Your task to perform on an android device: refresh tabs in the chrome app Image 0: 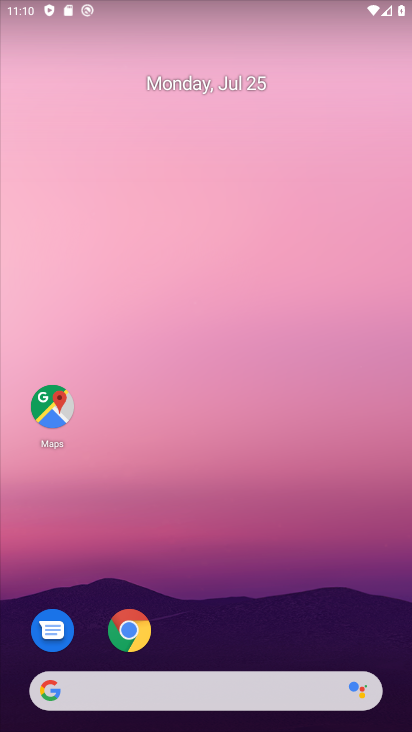
Step 0: drag from (228, 529) to (200, 100)
Your task to perform on an android device: refresh tabs in the chrome app Image 1: 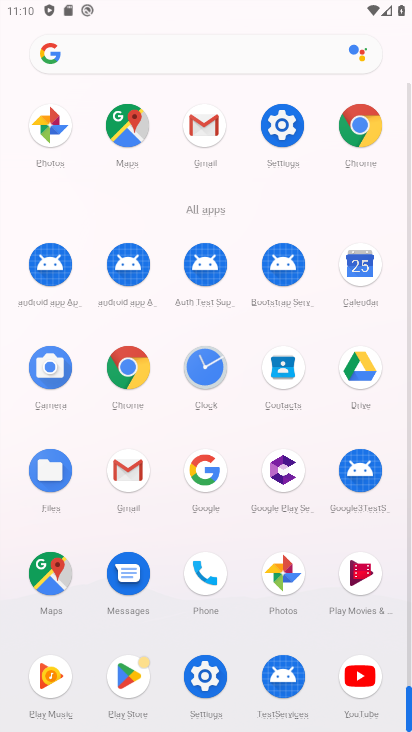
Step 1: click (352, 126)
Your task to perform on an android device: refresh tabs in the chrome app Image 2: 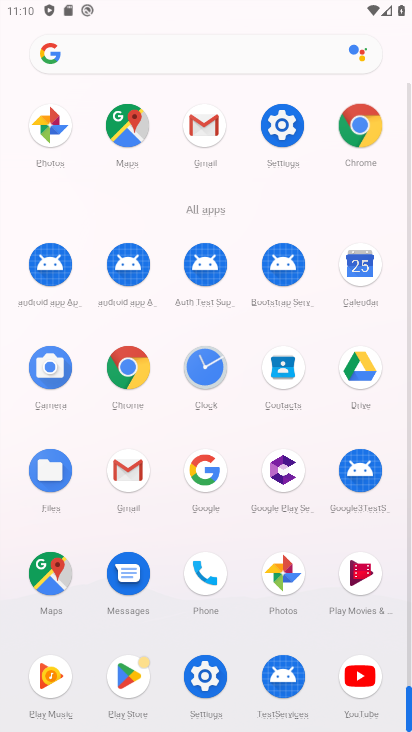
Step 2: click (352, 126)
Your task to perform on an android device: refresh tabs in the chrome app Image 3: 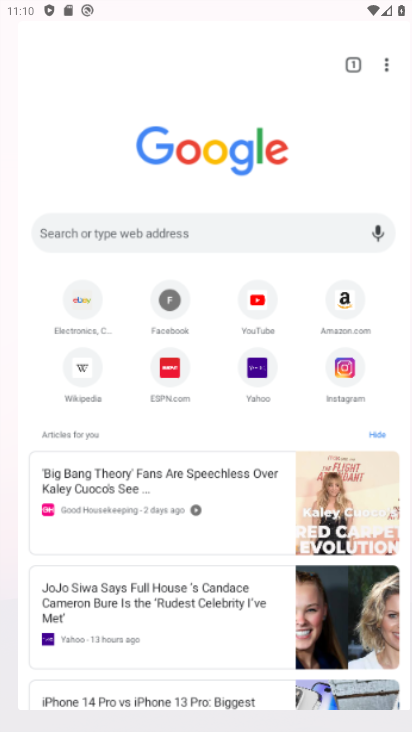
Step 3: click (358, 129)
Your task to perform on an android device: refresh tabs in the chrome app Image 4: 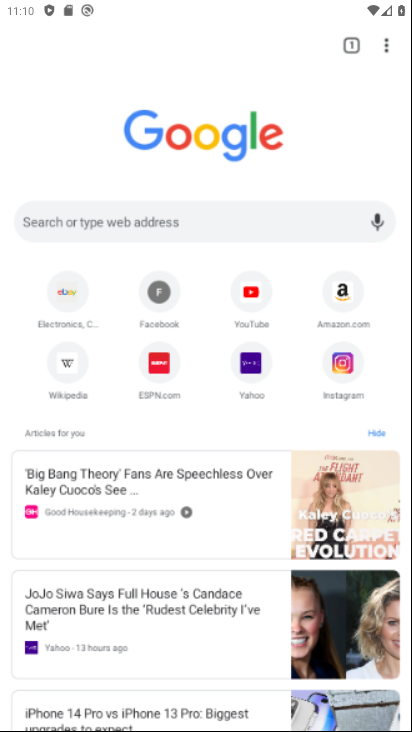
Step 4: click (358, 129)
Your task to perform on an android device: refresh tabs in the chrome app Image 5: 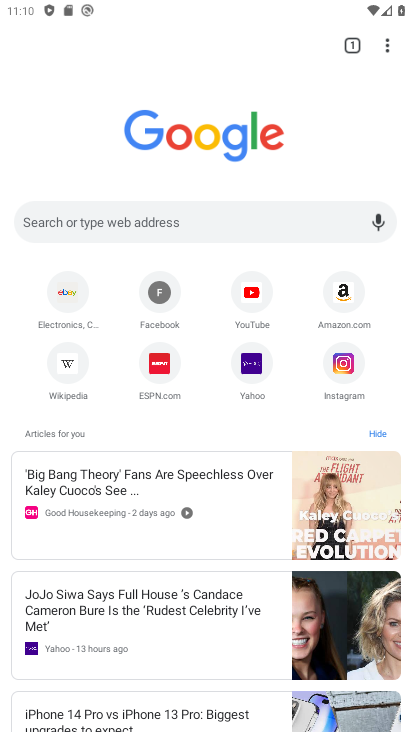
Step 5: click (385, 31)
Your task to perform on an android device: refresh tabs in the chrome app Image 6: 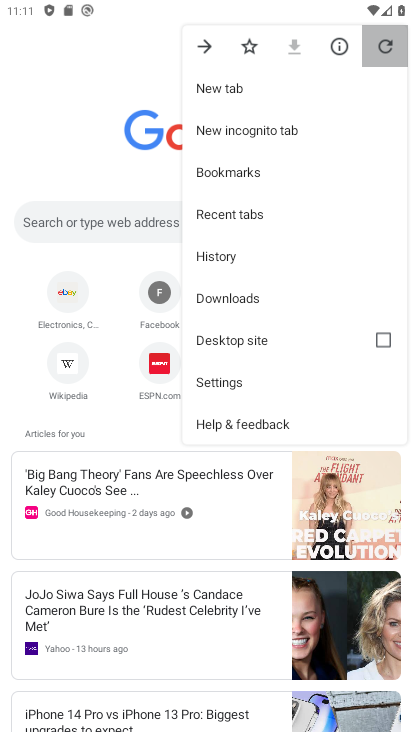
Step 6: click (385, 44)
Your task to perform on an android device: refresh tabs in the chrome app Image 7: 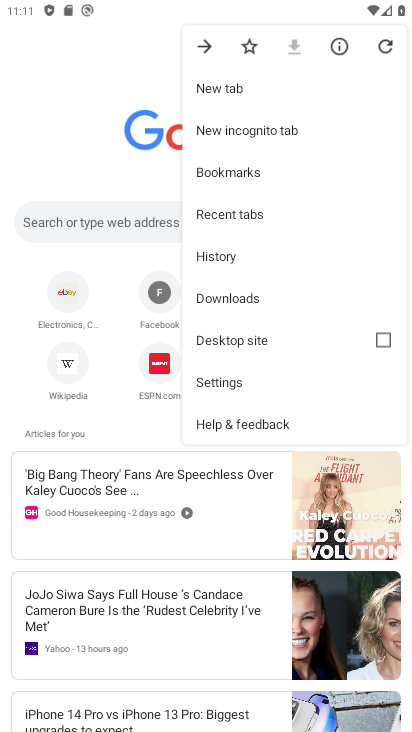
Step 7: task complete